Your task to perform on an android device: turn on bluetooth scan Image 0: 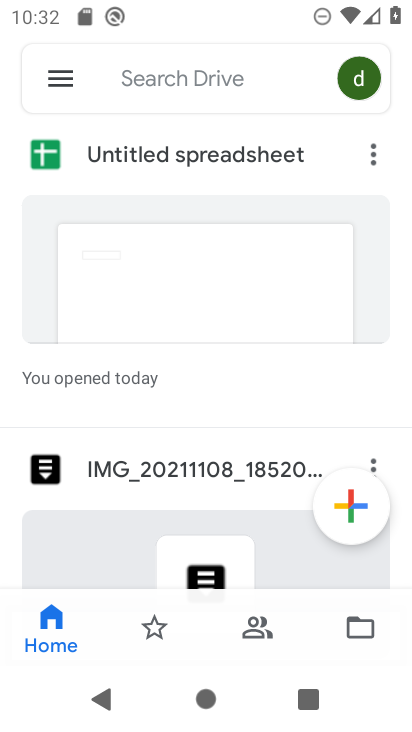
Step 0: press home button
Your task to perform on an android device: turn on bluetooth scan Image 1: 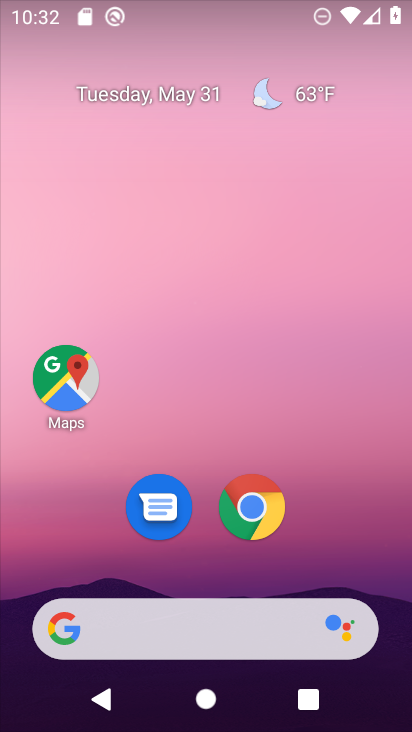
Step 1: drag from (50, 558) to (217, 33)
Your task to perform on an android device: turn on bluetooth scan Image 2: 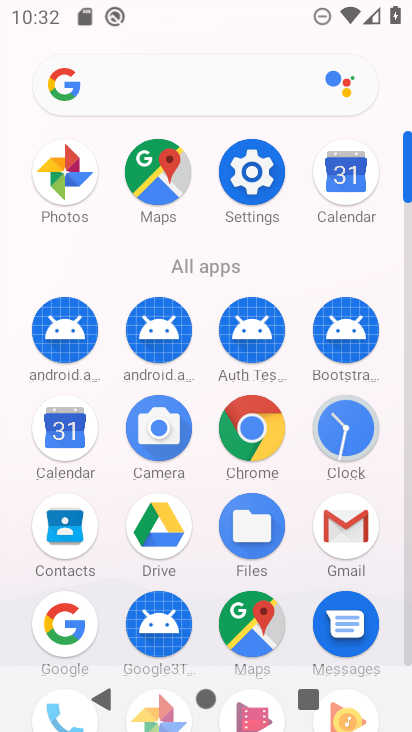
Step 2: drag from (135, 591) to (225, 262)
Your task to perform on an android device: turn on bluetooth scan Image 3: 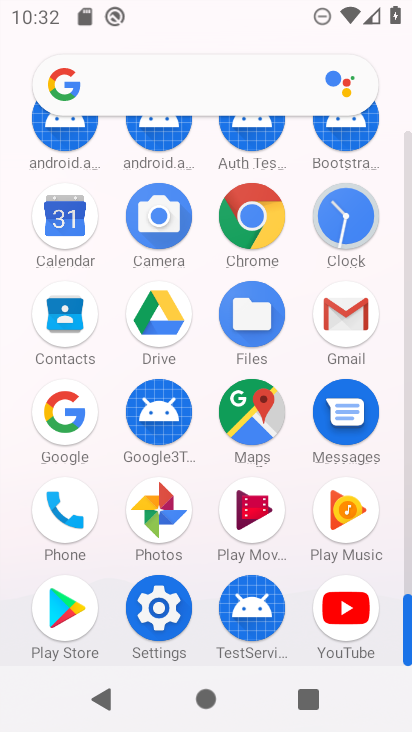
Step 3: click (151, 634)
Your task to perform on an android device: turn on bluetooth scan Image 4: 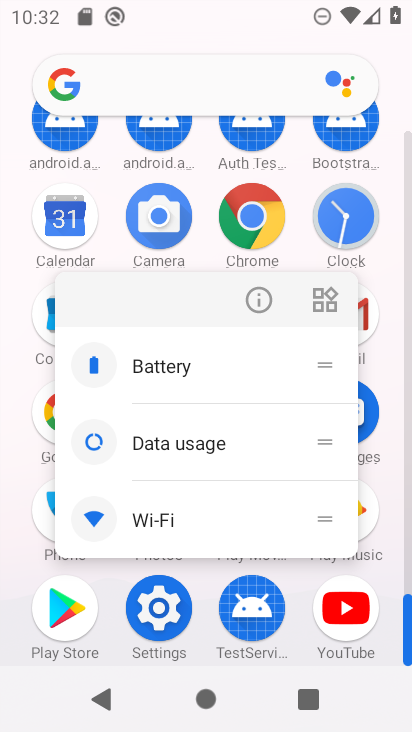
Step 4: click (150, 609)
Your task to perform on an android device: turn on bluetooth scan Image 5: 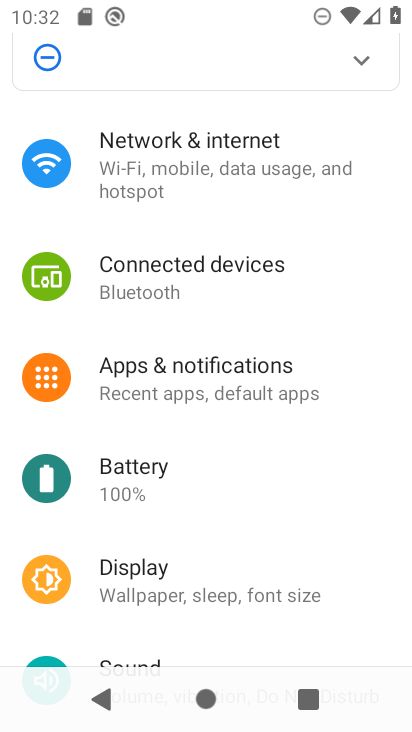
Step 5: click (257, 300)
Your task to perform on an android device: turn on bluetooth scan Image 6: 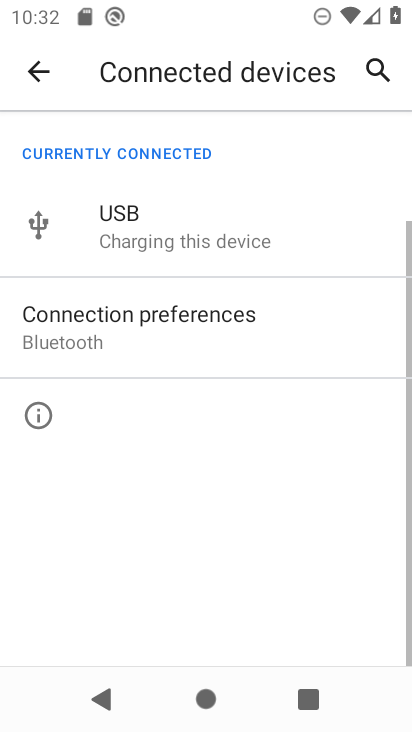
Step 6: click (247, 313)
Your task to perform on an android device: turn on bluetooth scan Image 7: 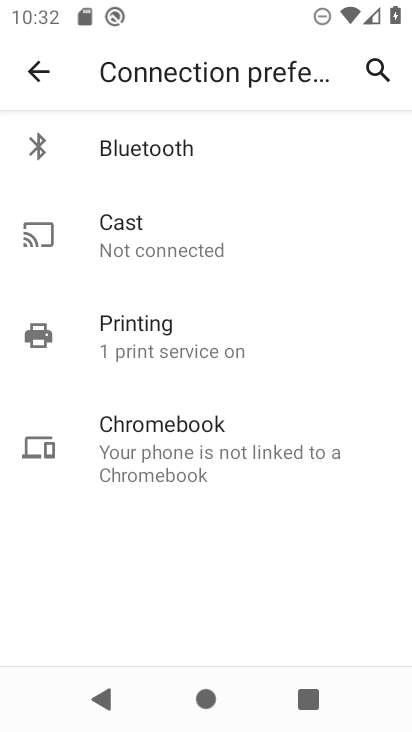
Step 7: click (237, 158)
Your task to perform on an android device: turn on bluetooth scan Image 8: 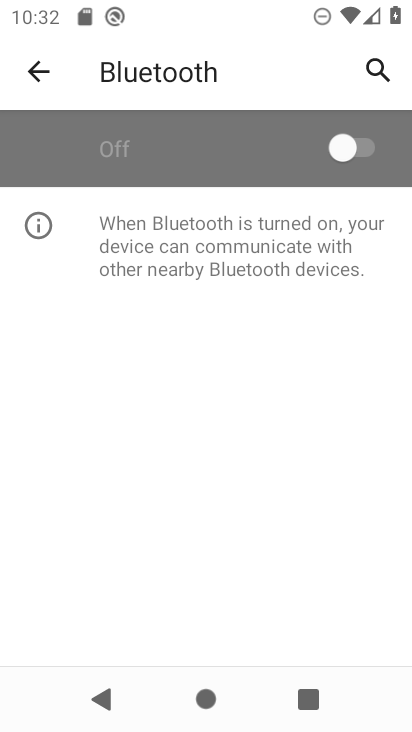
Step 8: click (389, 143)
Your task to perform on an android device: turn on bluetooth scan Image 9: 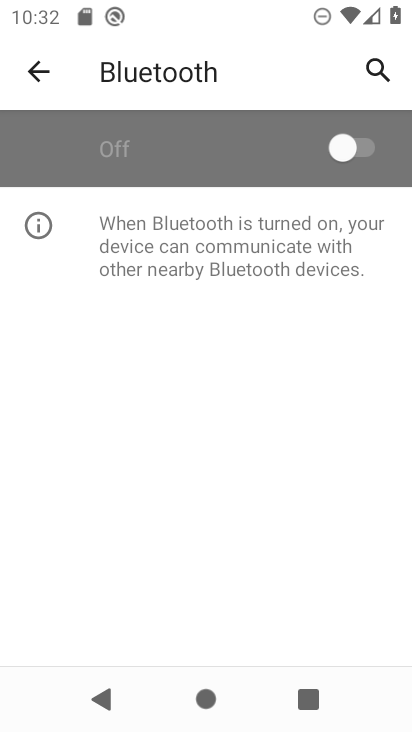
Step 9: click (387, 142)
Your task to perform on an android device: turn on bluetooth scan Image 10: 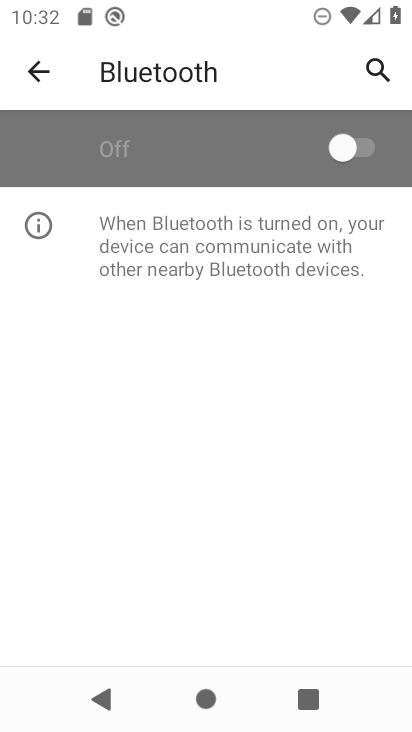
Step 10: task complete